Your task to perform on an android device: Is it going to rain tomorrow? Image 0: 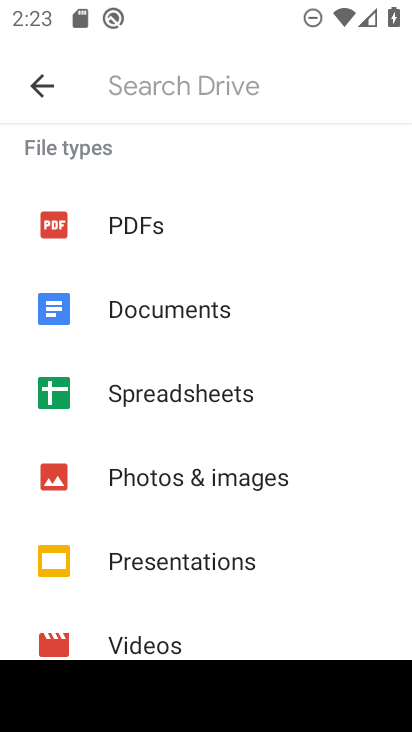
Step 0: press home button
Your task to perform on an android device: Is it going to rain tomorrow? Image 1: 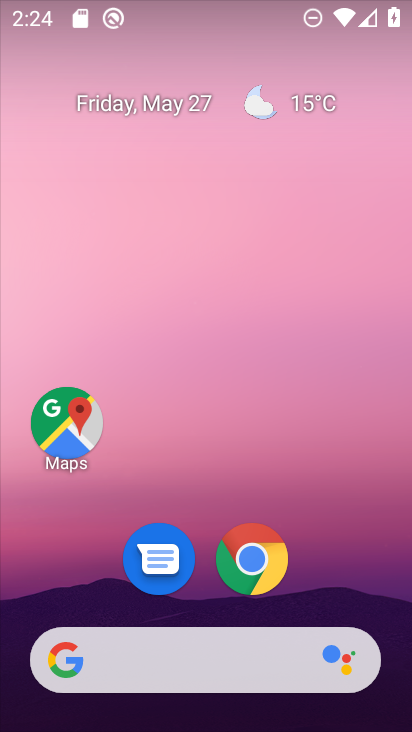
Step 1: drag from (319, 656) to (252, 17)
Your task to perform on an android device: Is it going to rain tomorrow? Image 2: 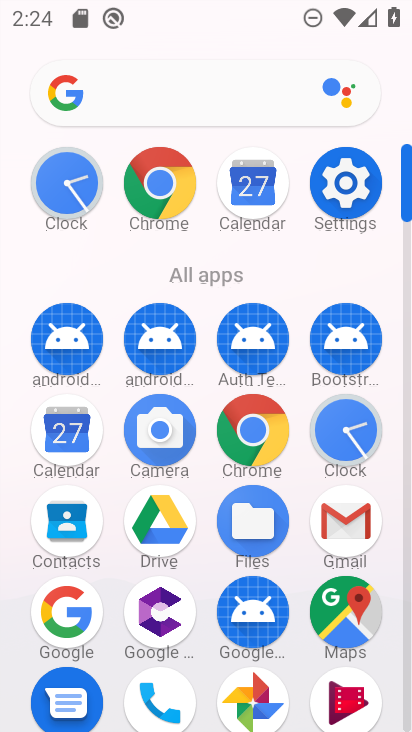
Step 2: press home button
Your task to perform on an android device: Is it going to rain tomorrow? Image 3: 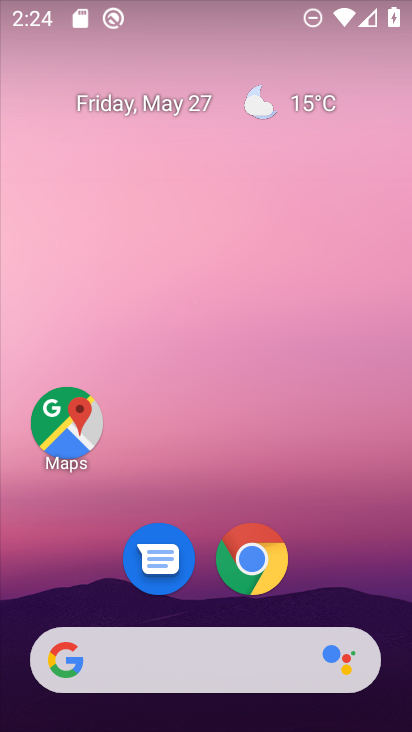
Step 3: drag from (10, 238) to (411, 279)
Your task to perform on an android device: Is it going to rain tomorrow? Image 4: 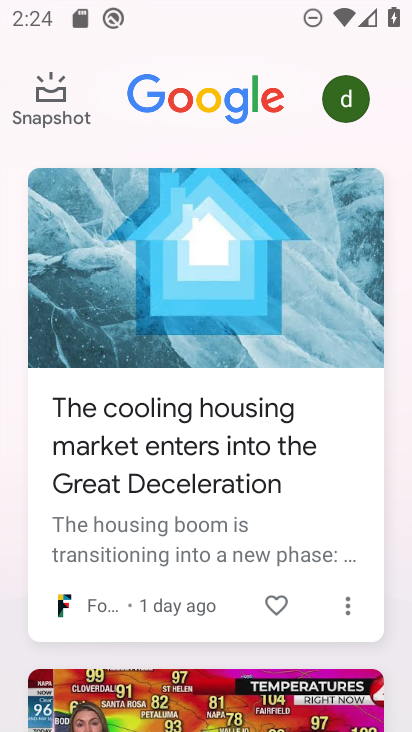
Step 4: press home button
Your task to perform on an android device: Is it going to rain tomorrow? Image 5: 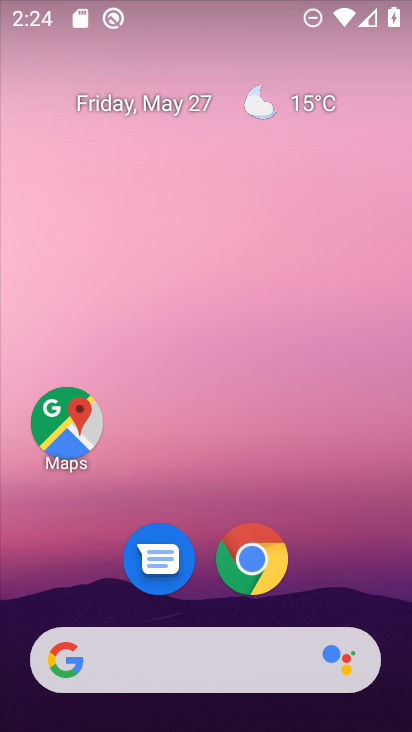
Step 5: drag from (252, 567) to (247, 16)
Your task to perform on an android device: Is it going to rain tomorrow? Image 6: 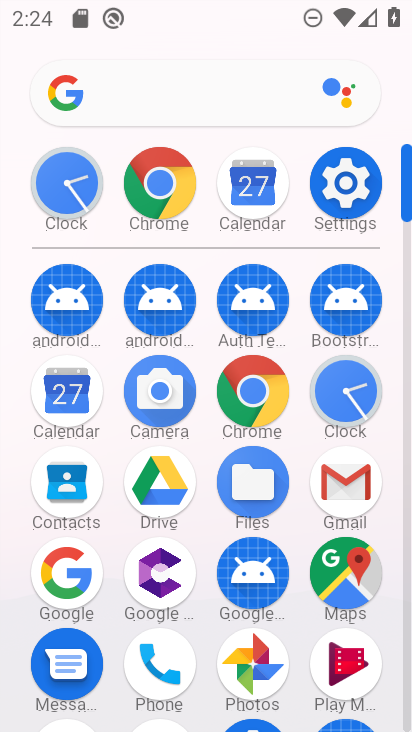
Step 6: click (62, 576)
Your task to perform on an android device: Is it going to rain tomorrow? Image 7: 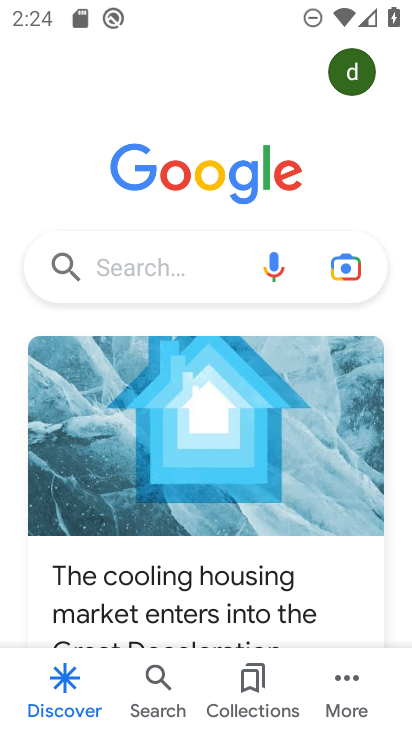
Step 7: click (171, 255)
Your task to perform on an android device: Is it going to rain tomorrow? Image 8: 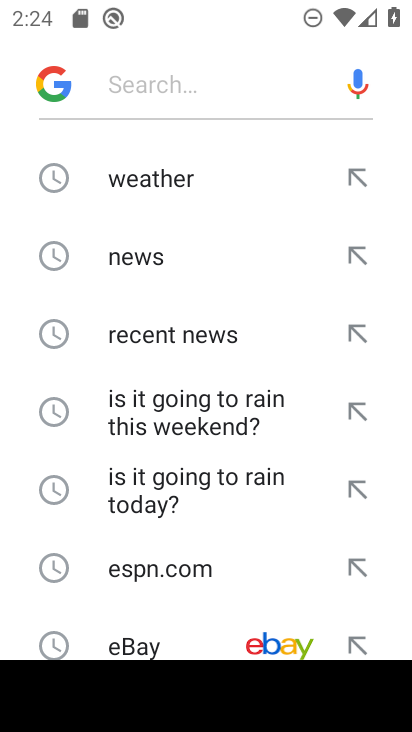
Step 8: click (173, 181)
Your task to perform on an android device: Is it going to rain tomorrow? Image 9: 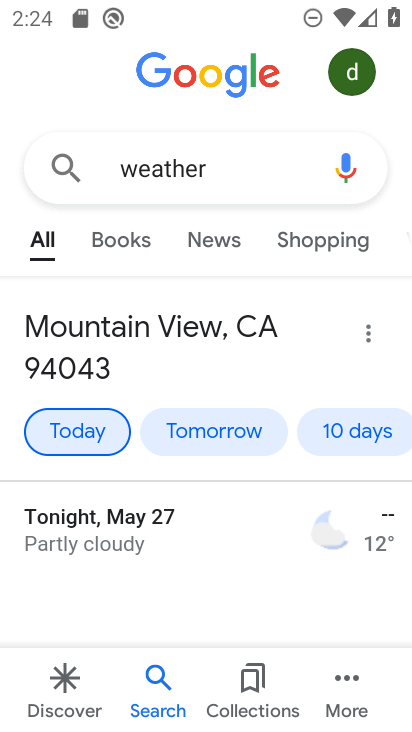
Step 9: click (225, 417)
Your task to perform on an android device: Is it going to rain tomorrow? Image 10: 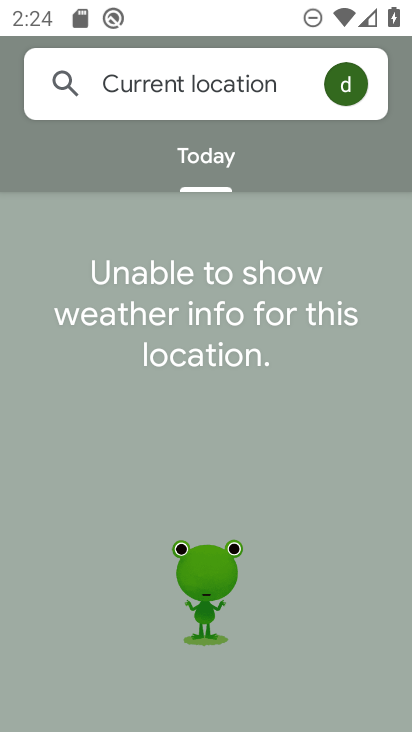
Step 10: task complete